Your task to perform on an android device: Search for "razer naga" on amazon.com, select the first entry, add it to the cart, then select checkout. Image 0: 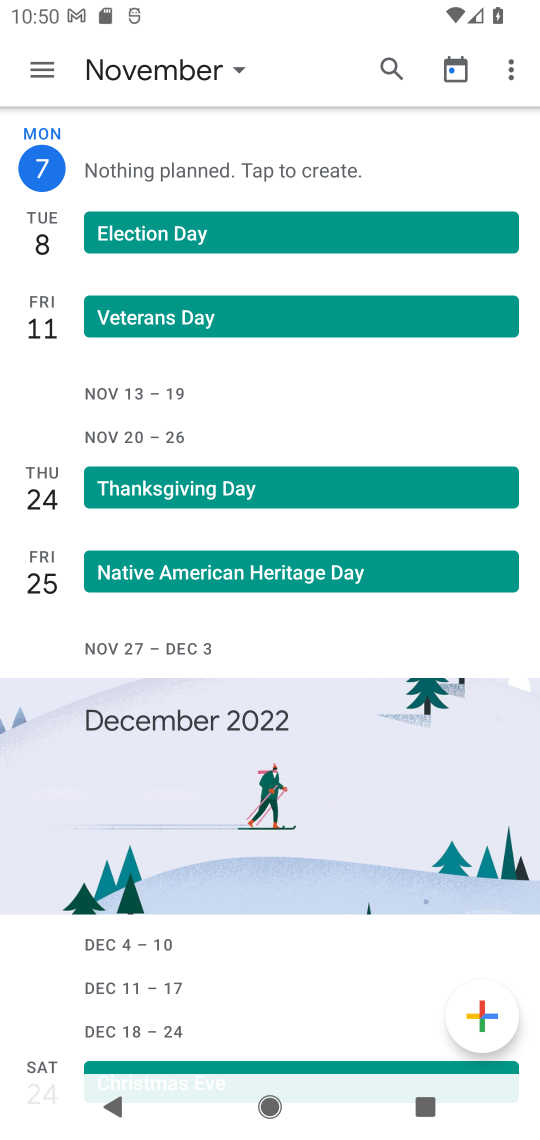
Step 0: press home button
Your task to perform on an android device: Search for "razer naga" on amazon.com, select the first entry, add it to the cart, then select checkout. Image 1: 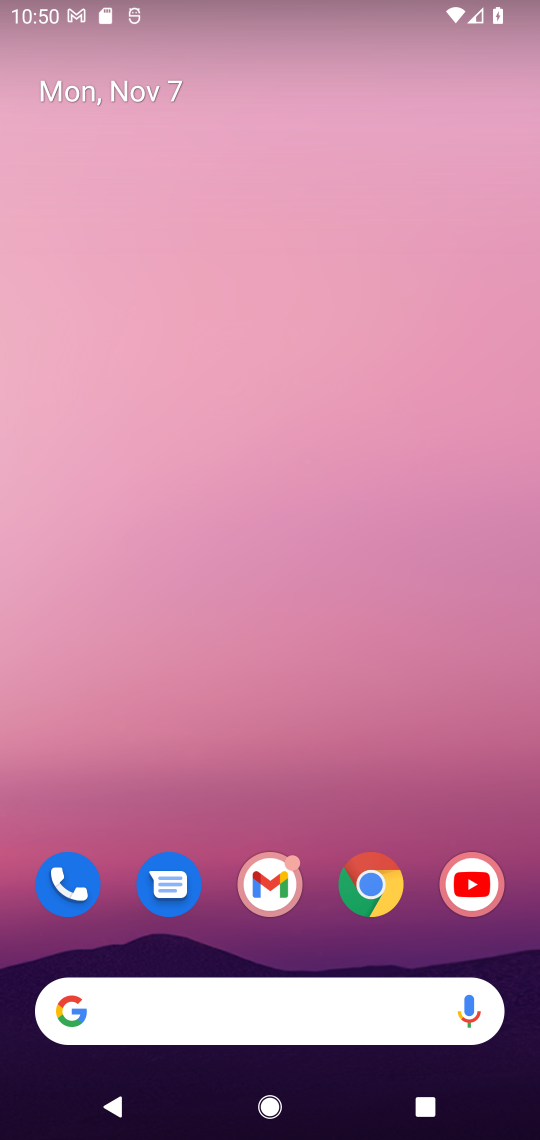
Step 1: click (396, 884)
Your task to perform on an android device: Search for "razer naga" on amazon.com, select the first entry, add it to the cart, then select checkout. Image 2: 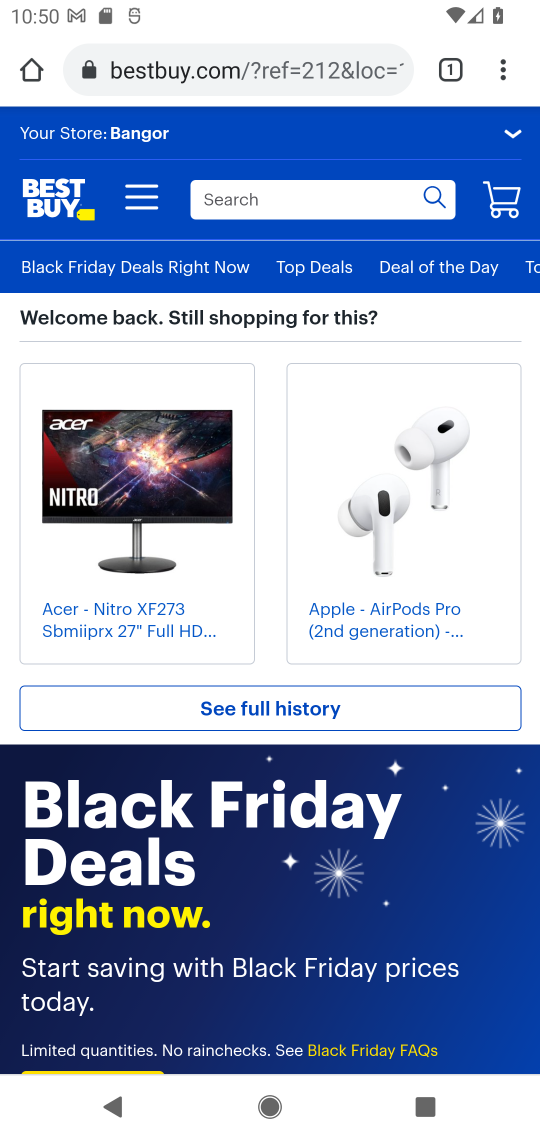
Step 2: click (25, 71)
Your task to perform on an android device: Search for "razer naga" on amazon.com, select the first entry, add it to the cart, then select checkout. Image 3: 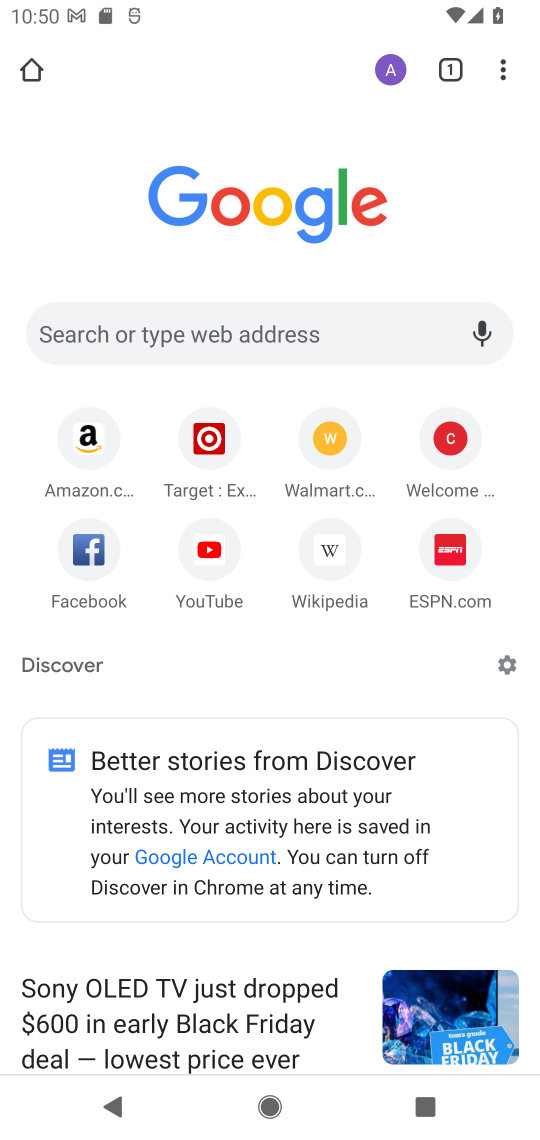
Step 3: click (294, 305)
Your task to perform on an android device: Search for "razer naga" on amazon.com, select the first entry, add it to the cart, then select checkout. Image 4: 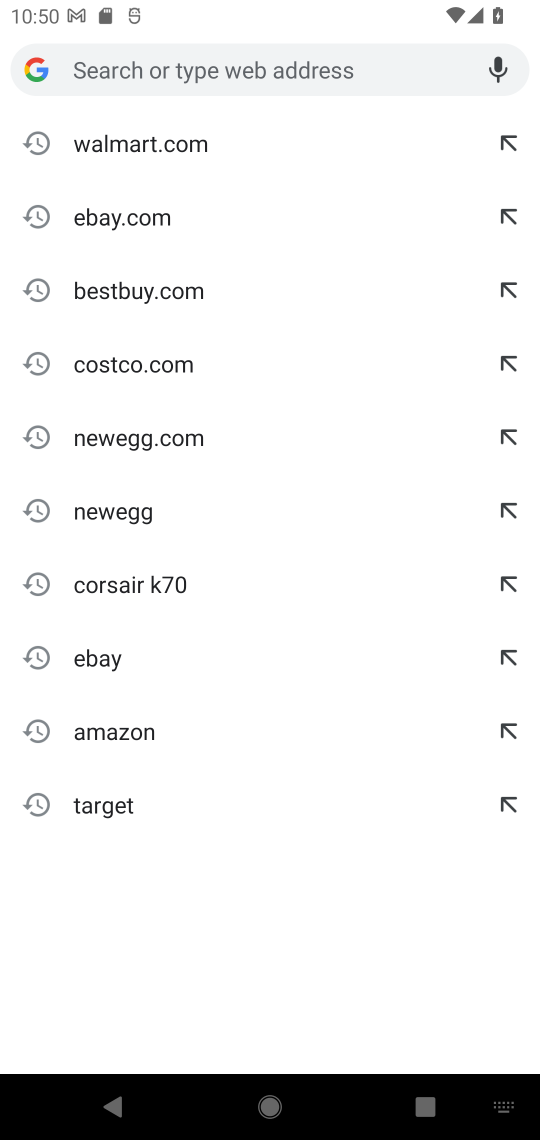
Step 4: click (133, 720)
Your task to perform on an android device: Search for "razer naga" on amazon.com, select the first entry, add it to the cart, then select checkout. Image 5: 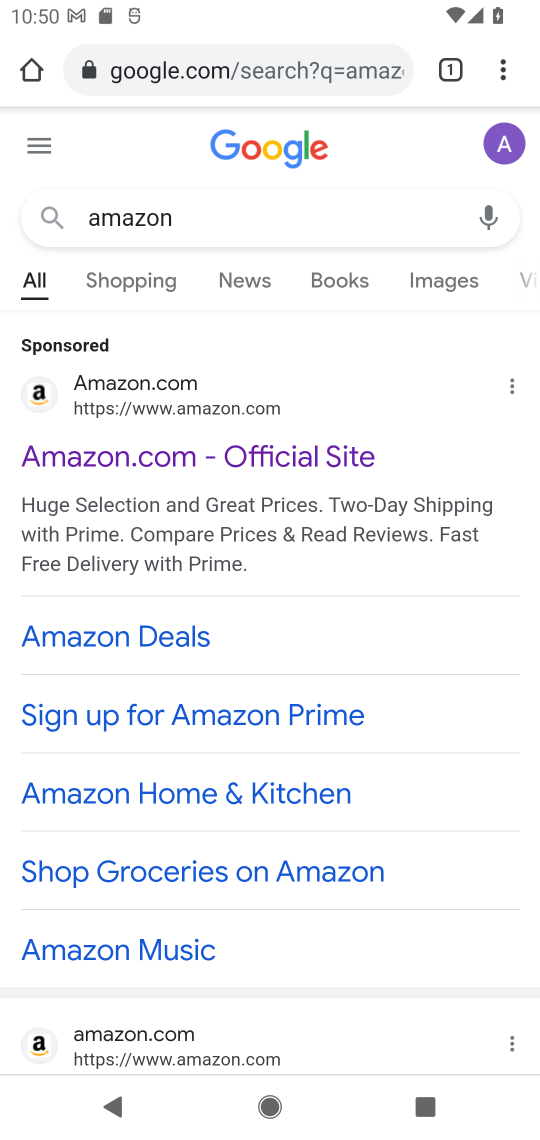
Step 5: click (214, 394)
Your task to perform on an android device: Search for "razer naga" on amazon.com, select the first entry, add it to the cart, then select checkout. Image 6: 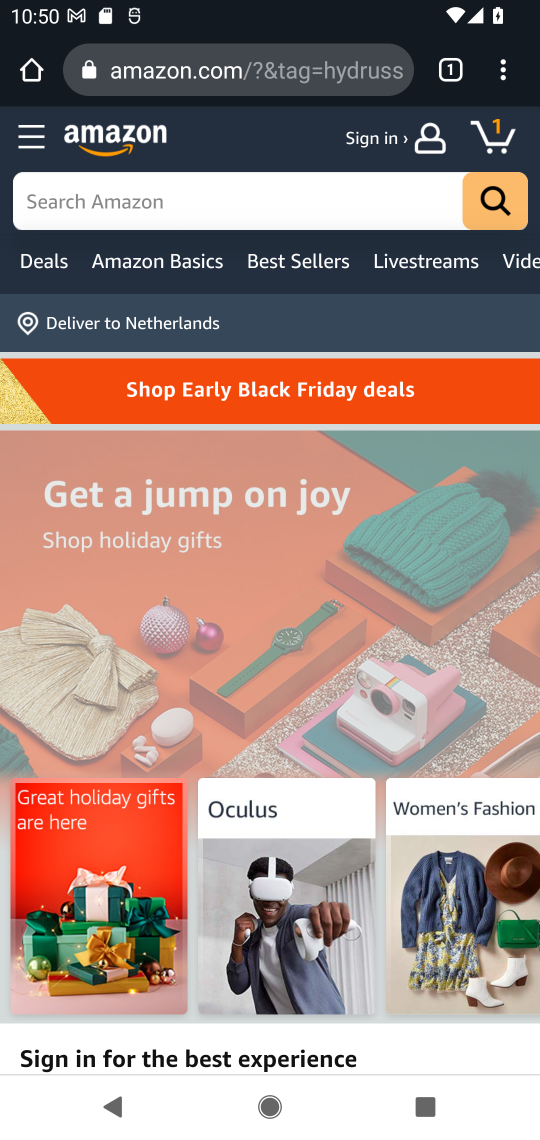
Step 6: click (382, 178)
Your task to perform on an android device: Search for "razer naga" on amazon.com, select the first entry, add it to the cart, then select checkout. Image 7: 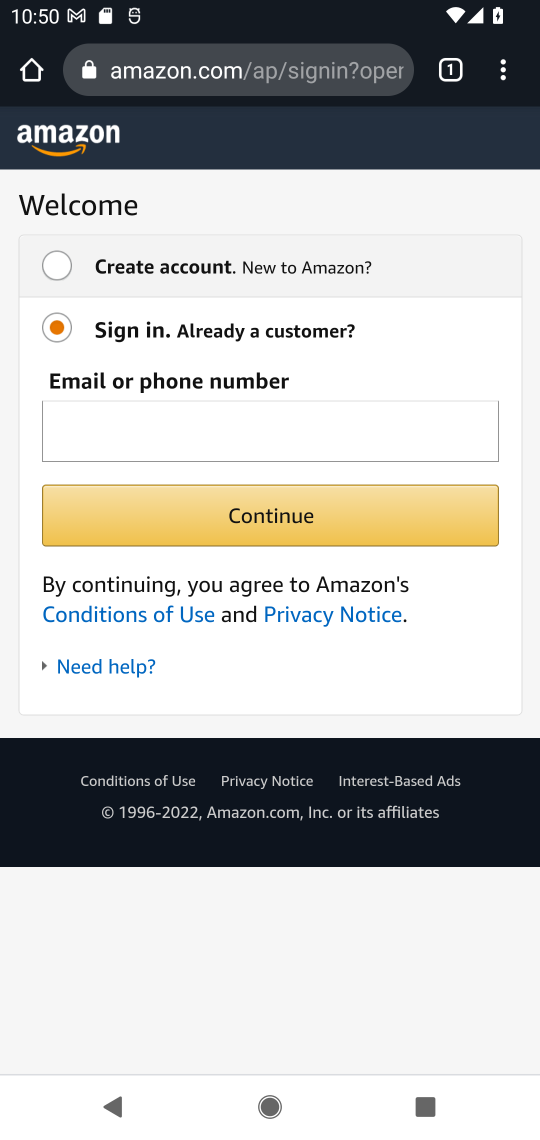
Step 7: press back button
Your task to perform on an android device: Search for "razer naga" on amazon.com, select the first entry, add it to the cart, then select checkout. Image 8: 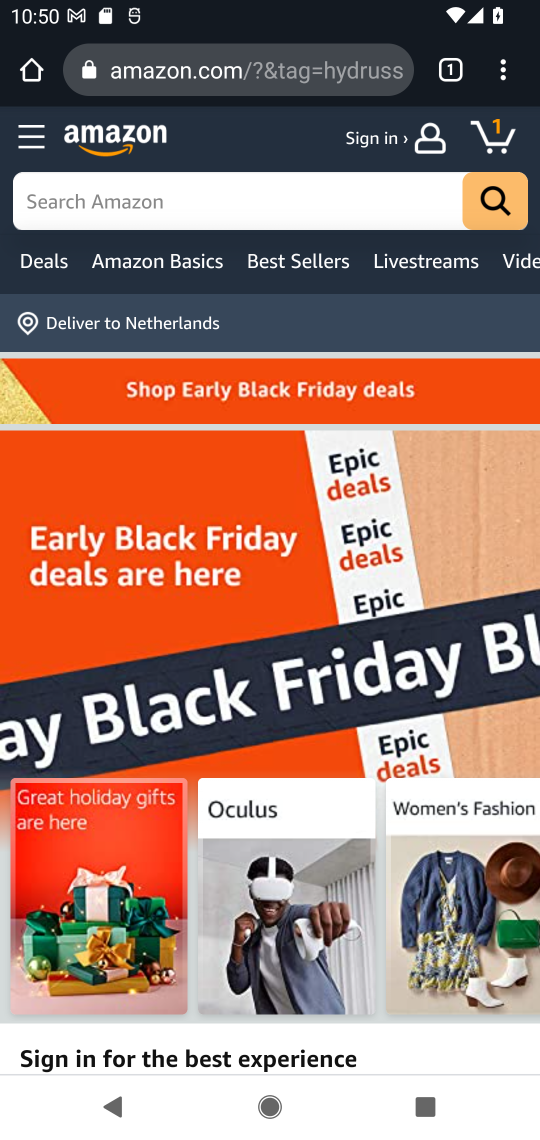
Step 8: click (312, 201)
Your task to perform on an android device: Search for "razer naga" on amazon.com, select the first entry, add it to the cart, then select checkout. Image 9: 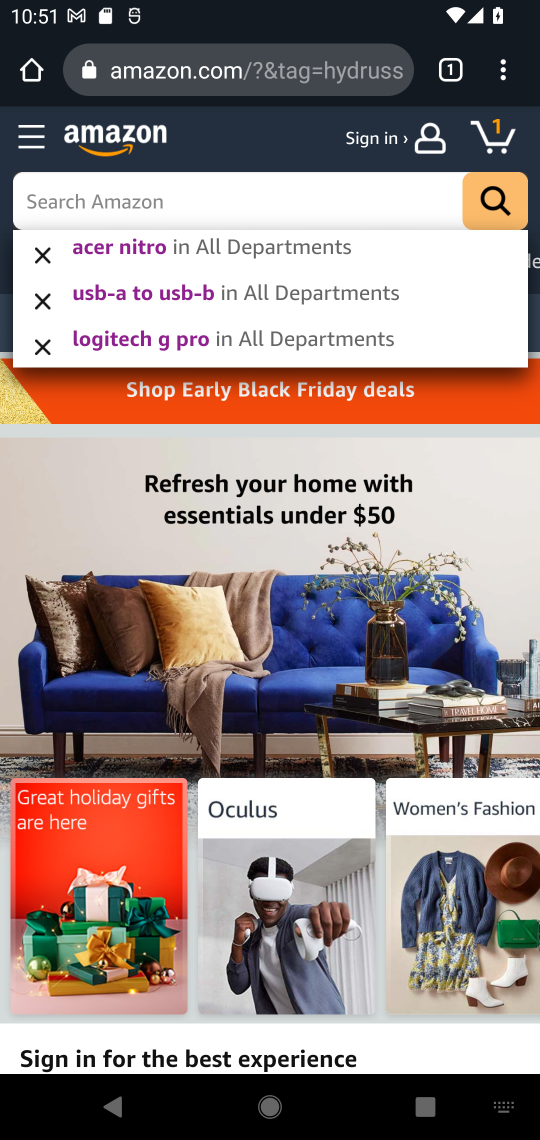
Step 9: type "razer naga"
Your task to perform on an android device: Search for "razer naga" on amazon.com, select the first entry, add it to the cart, then select checkout. Image 10: 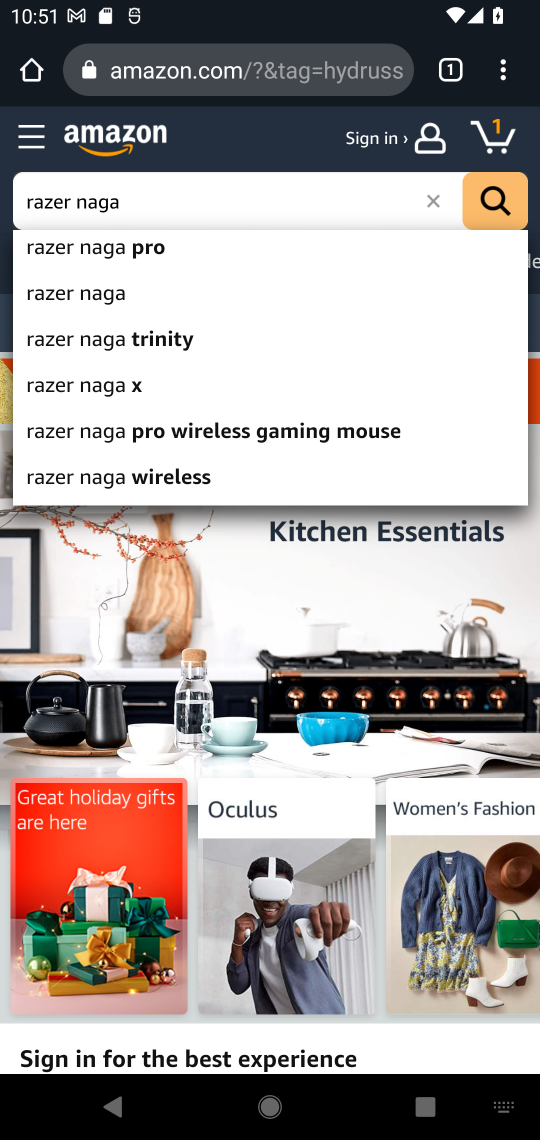
Step 10: click (88, 289)
Your task to perform on an android device: Search for "razer naga" on amazon.com, select the first entry, add it to the cart, then select checkout. Image 11: 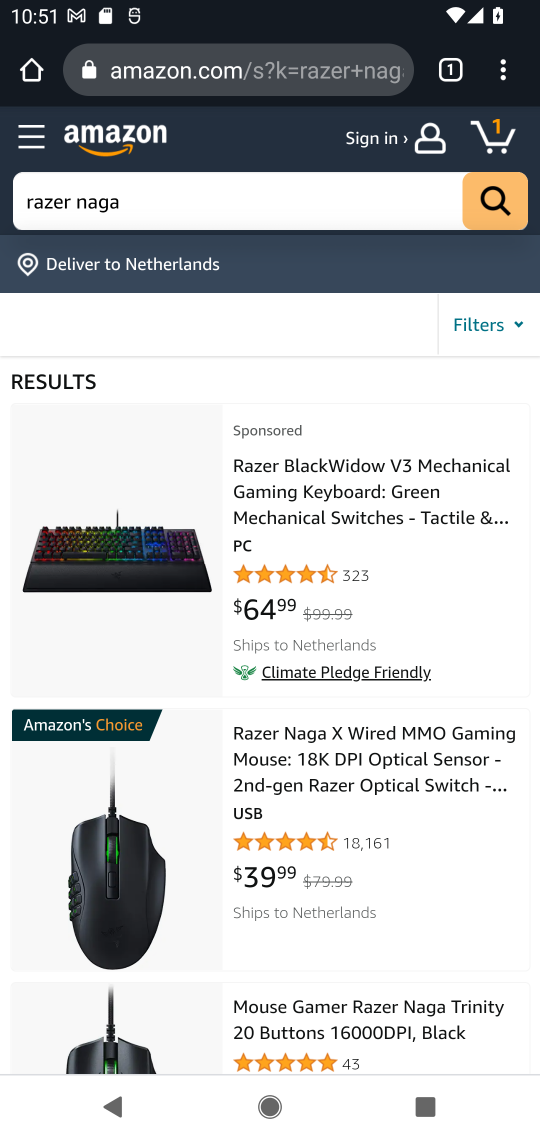
Step 11: click (150, 842)
Your task to perform on an android device: Search for "razer naga" on amazon.com, select the first entry, add it to the cart, then select checkout. Image 12: 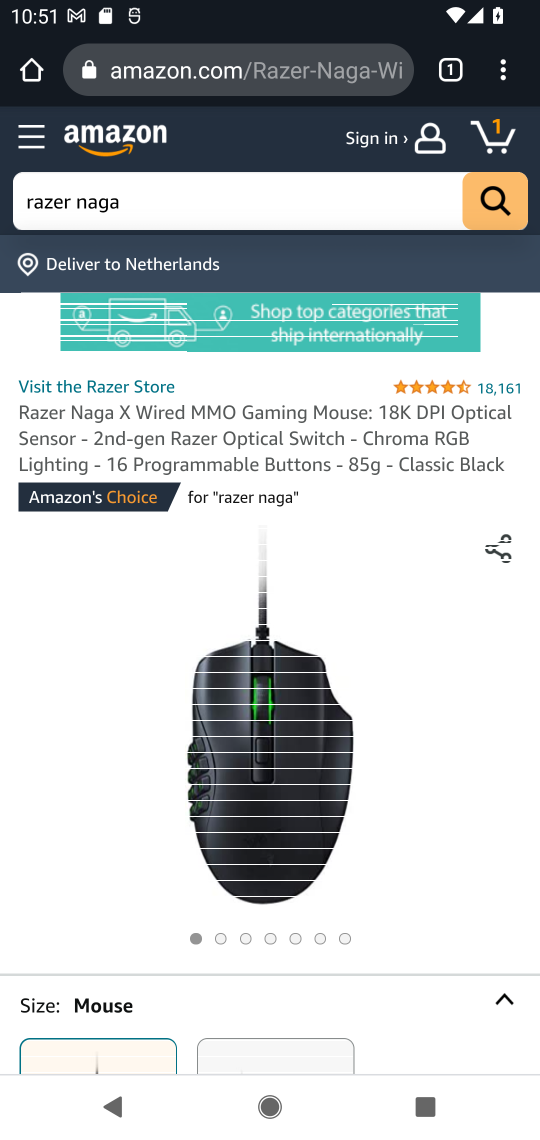
Step 12: drag from (412, 839) to (418, 386)
Your task to perform on an android device: Search for "razer naga" on amazon.com, select the first entry, add it to the cart, then select checkout. Image 13: 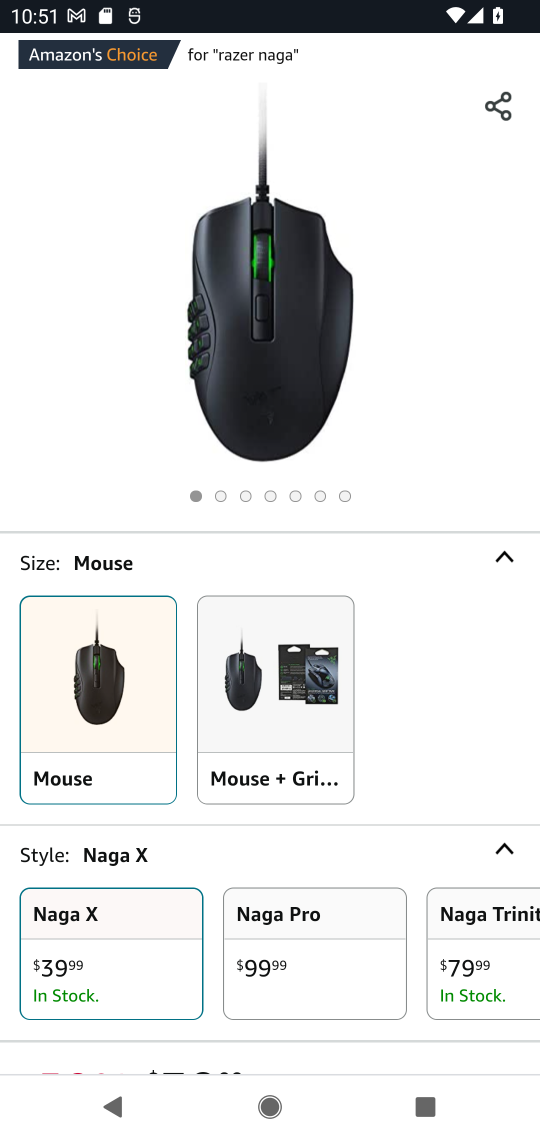
Step 13: drag from (448, 754) to (419, 390)
Your task to perform on an android device: Search for "razer naga" on amazon.com, select the first entry, add it to the cart, then select checkout. Image 14: 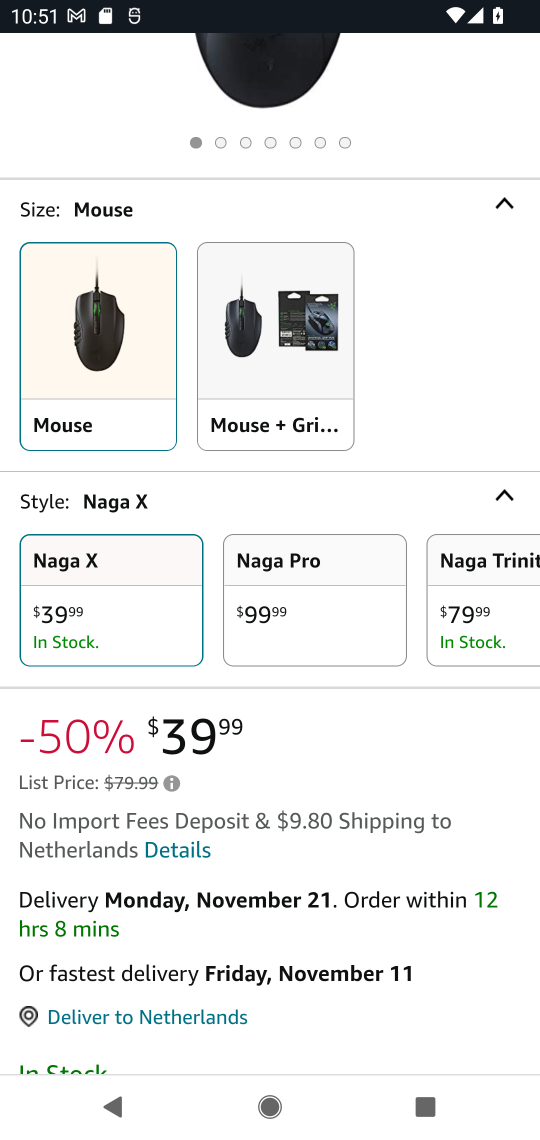
Step 14: drag from (442, 727) to (439, 458)
Your task to perform on an android device: Search for "razer naga" on amazon.com, select the first entry, add it to the cart, then select checkout. Image 15: 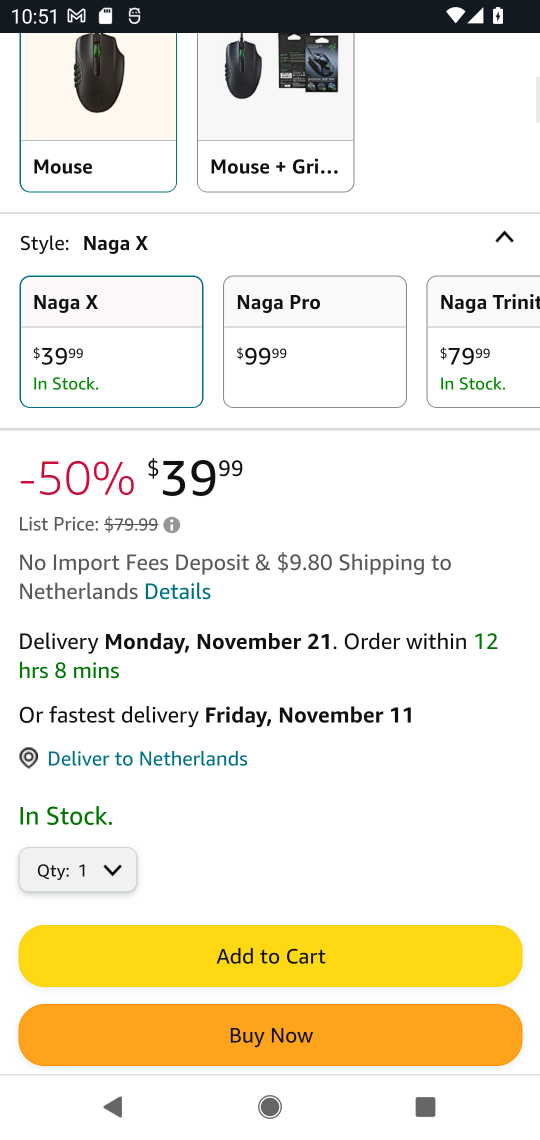
Step 15: click (352, 947)
Your task to perform on an android device: Search for "razer naga" on amazon.com, select the first entry, add it to the cart, then select checkout. Image 16: 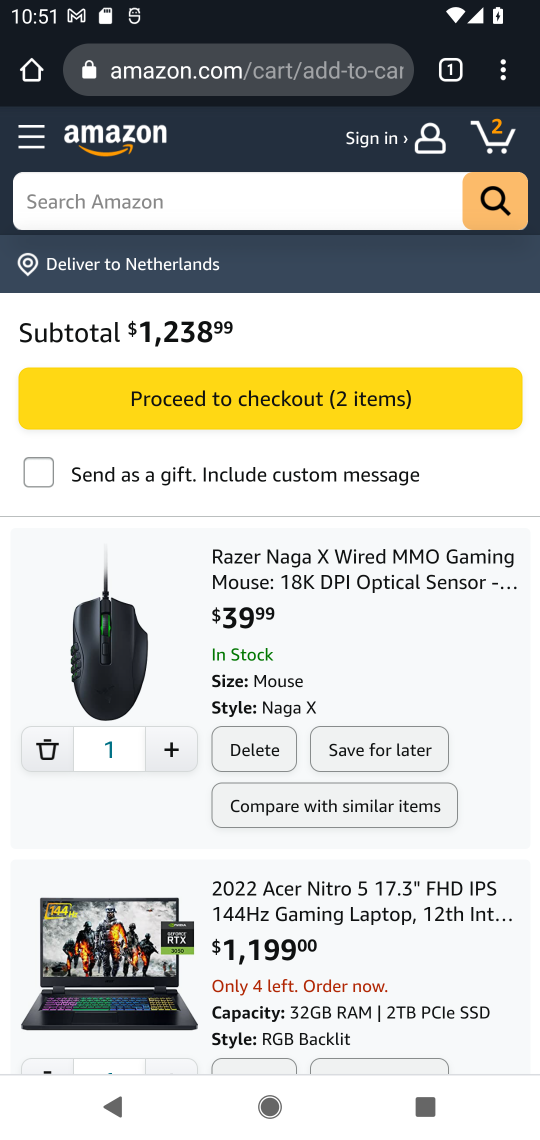
Step 16: click (255, 390)
Your task to perform on an android device: Search for "razer naga" on amazon.com, select the first entry, add it to the cart, then select checkout. Image 17: 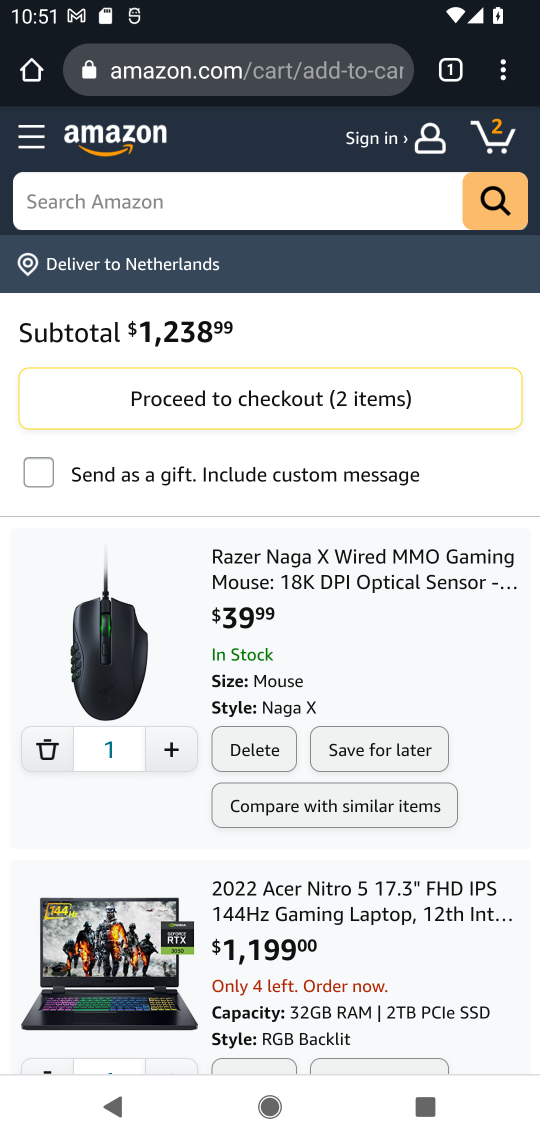
Step 17: task complete